Your task to perform on an android device: check battery use Image 0: 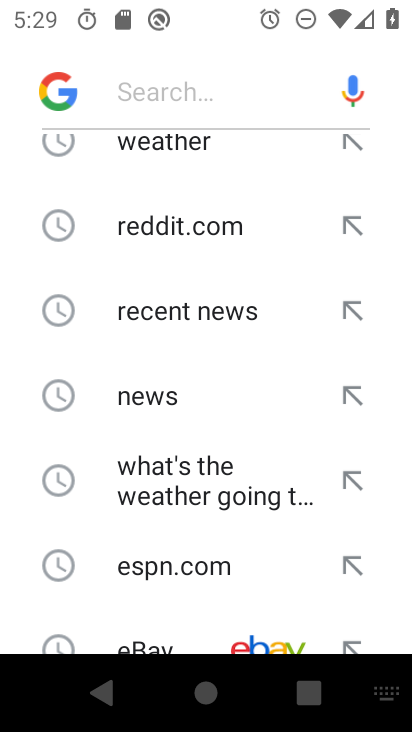
Step 0: press home button
Your task to perform on an android device: check battery use Image 1: 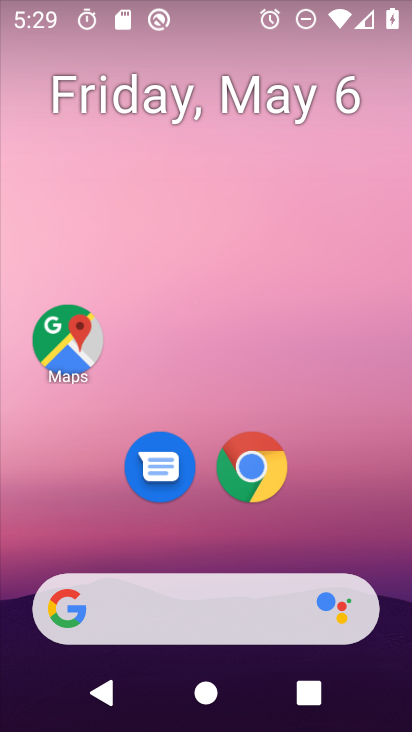
Step 1: drag from (312, 510) to (315, 138)
Your task to perform on an android device: check battery use Image 2: 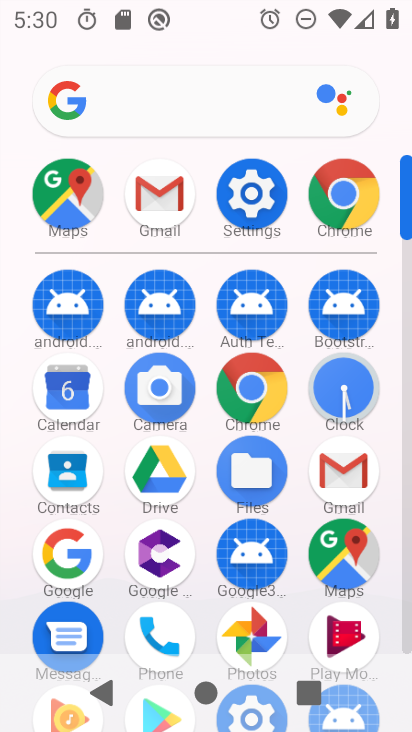
Step 2: click (269, 217)
Your task to perform on an android device: check battery use Image 3: 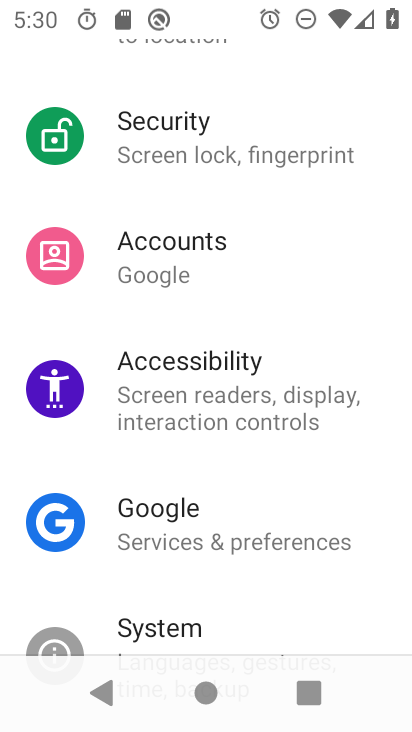
Step 3: drag from (246, 548) to (297, 240)
Your task to perform on an android device: check battery use Image 4: 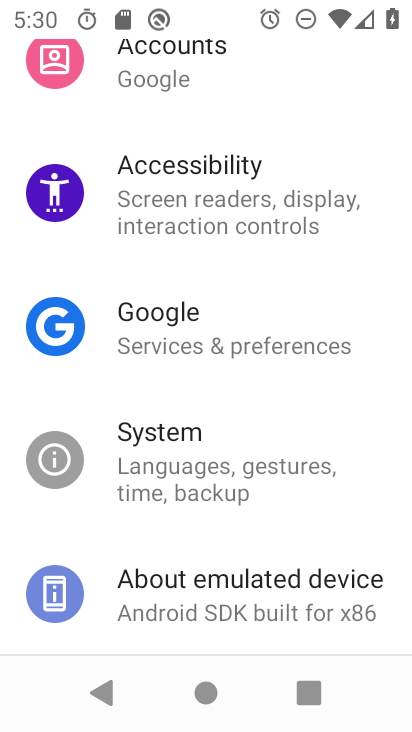
Step 4: drag from (269, 305) to (252, 613)
Your task to perform on an android device: check battery use Image 5: 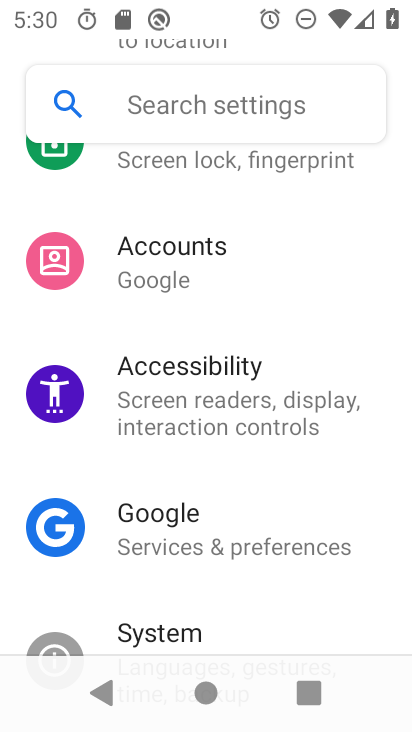
Step 5: drag from (289, 239) to (260, 537)
Your task to perform on an android device: check battery use Image 6: 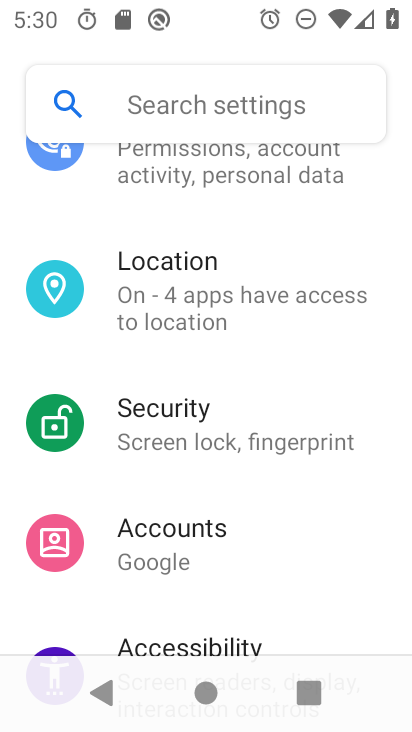
Step 6: drag from (284, 241) to (260, 497)
Your task to perform on an android device: check battery use Image 7: 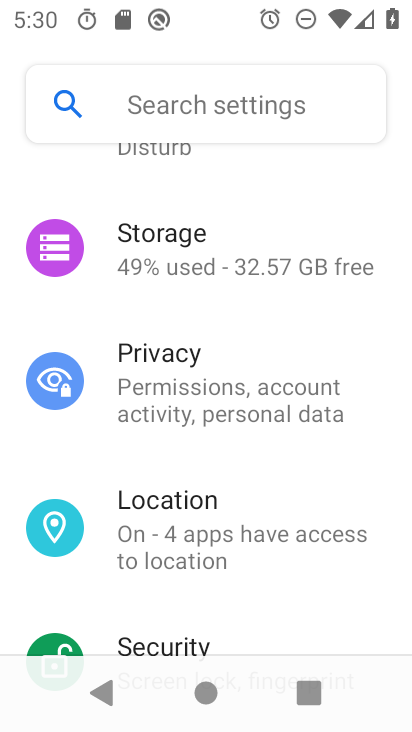
Step 7: drag from (241, 220) to (187, 505)
Your task to perform on an android device: check battery use Image 8: 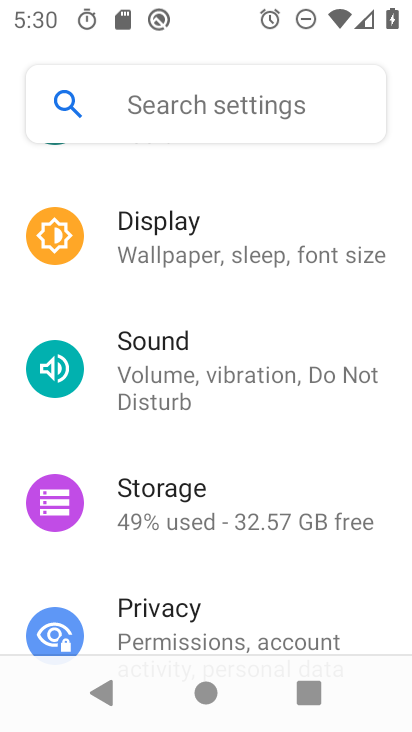
Step 8: drag from (244, 267) to (211, 554)
Your task to perform on an android device: check battery use Image 9: 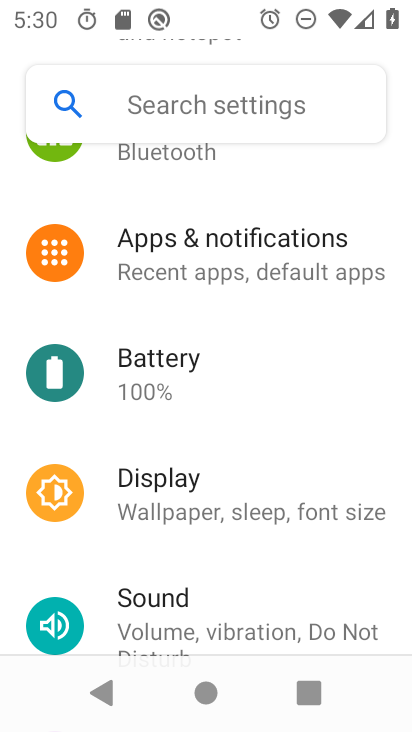
Step 9: click (186, 360)
Your task to perform on an android device: check battery use Image 10: 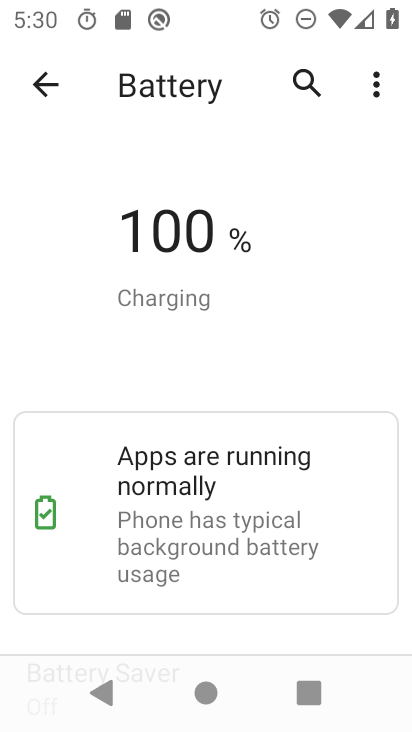
Step 10: task complete